Your task to perform on an android device: Open Maps and search for coffee Image 0: 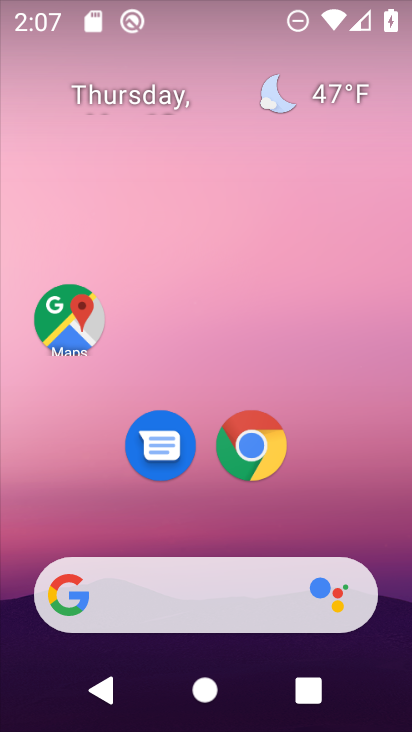
Step 0: drag from (222, 548) to (241, 350)
Your task to perform on an android device: Open Maps and search for coffee Image 1: 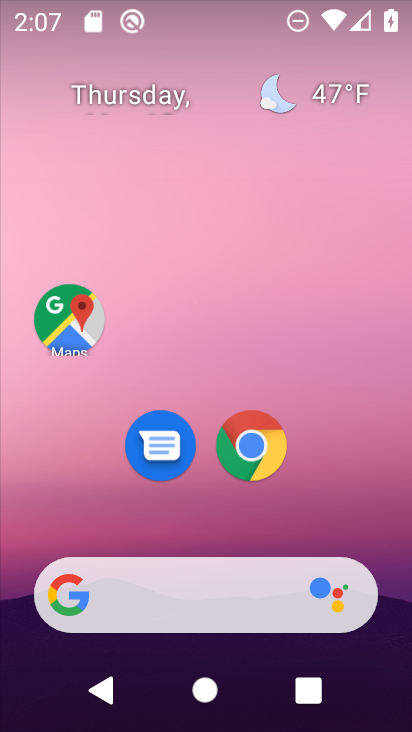
Step 1: click (71, 316)
Your task to perform on an android device: Open Maps and search for coffee Image 2: 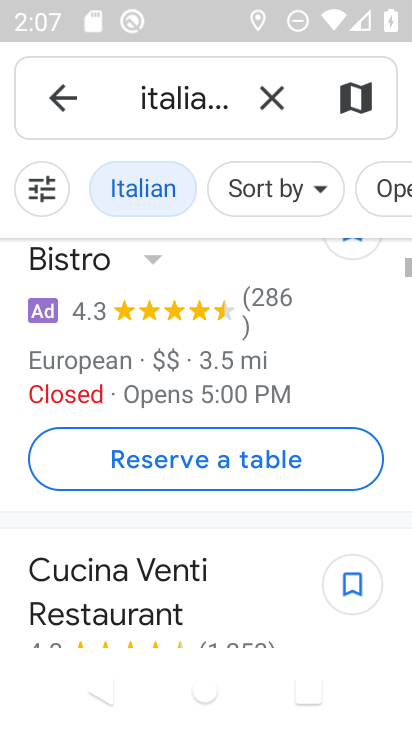
Step 2: click (270, 102)
Your task to perform on an android device: Open Maps and search for coffee Image 3: 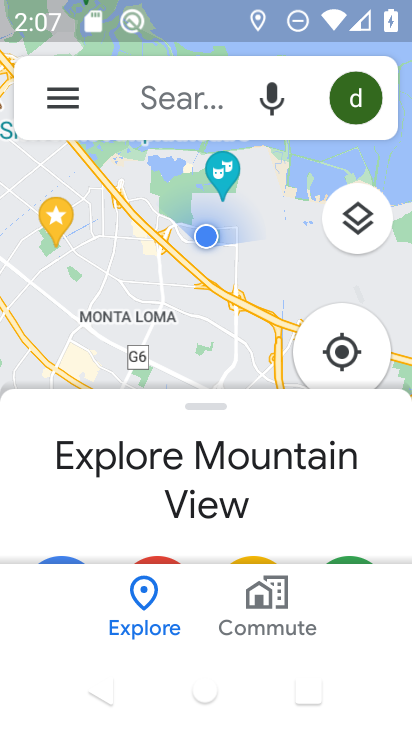
Step 3: click (232, 101)
Your task to perform on an android device: Open Maps and search for coffee Image 4: 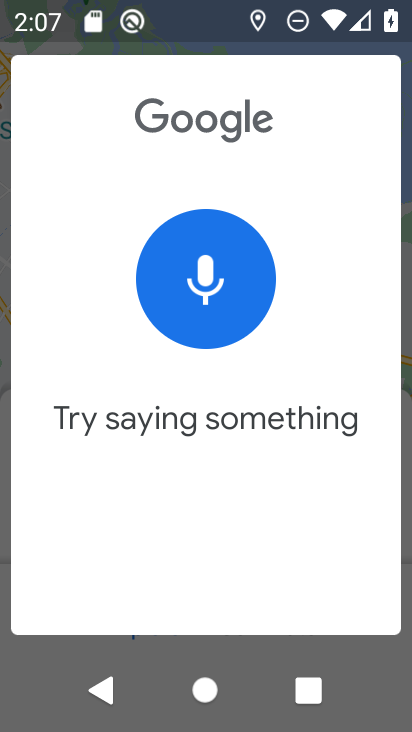
Step 4: press back button
Your task to perform on an android device: Open Maps and search for coffee Image 5: 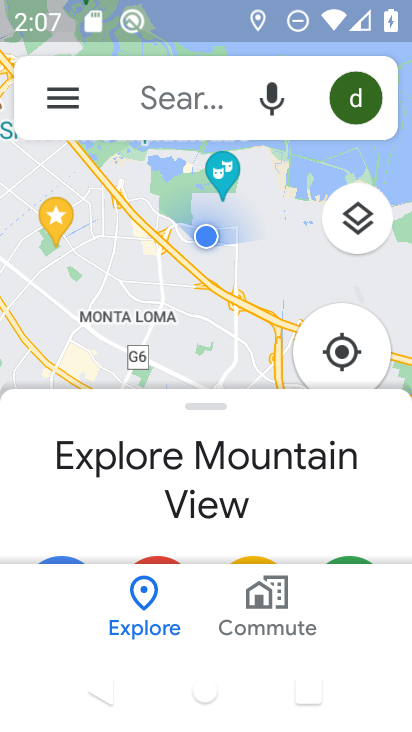
Step 5: click (167, 106)
Your task to perform on an android device: Open Maps and search for coffee Image 6: 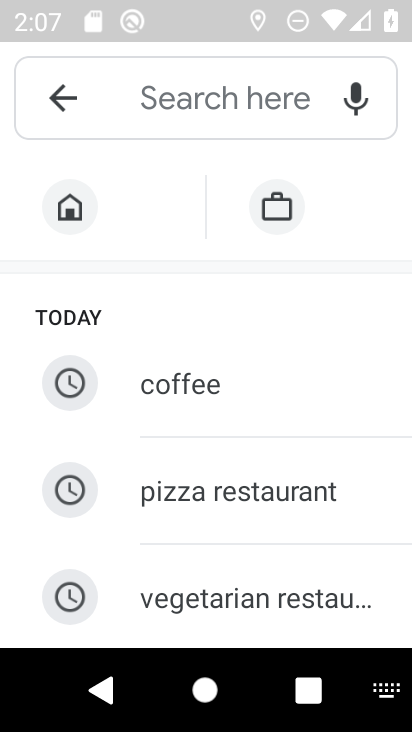
Step 6: click (197, 398)
Your task to perform on an android device: Open Maps and search for coffee Image 7: 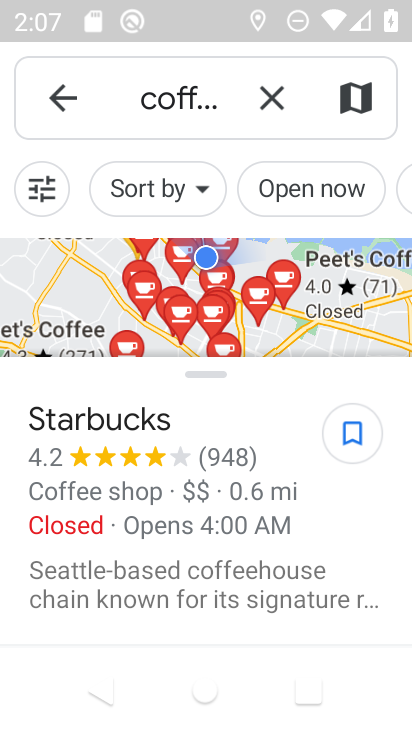
Step 7: task complete